Your task to perform on an android device: Go to privacy settings Image 0: 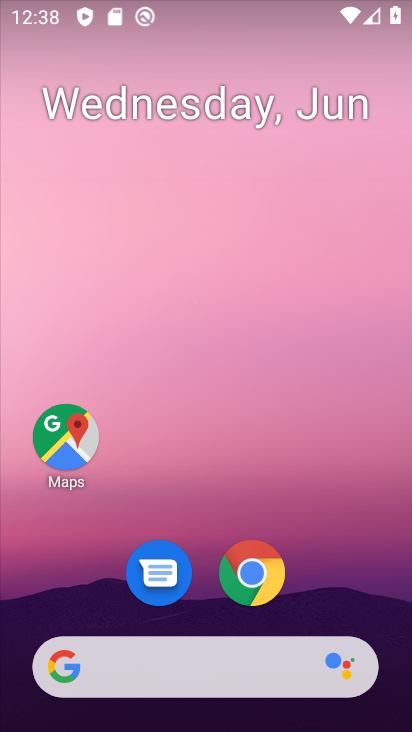
Step 0: drag from (292, 543) to (286, 154)
Your task to perform on an android device: Go to privacy settings Image 1: 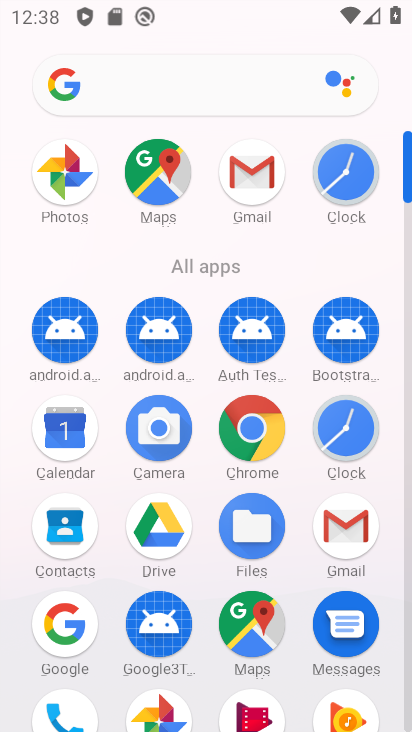
Step 1: drag from (211, 568) to (179, 287)
Your task to perform on an android device: Go to privacy settings Image 2: 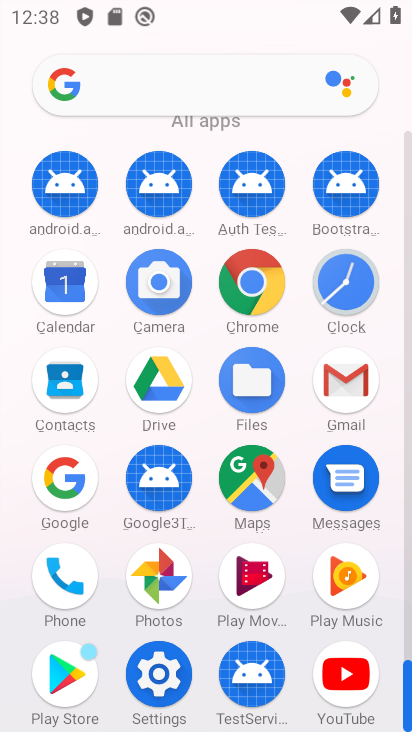
Step 2: click (175, 691)
Your task to perform on an android device: Go to privacy settings Image 3: 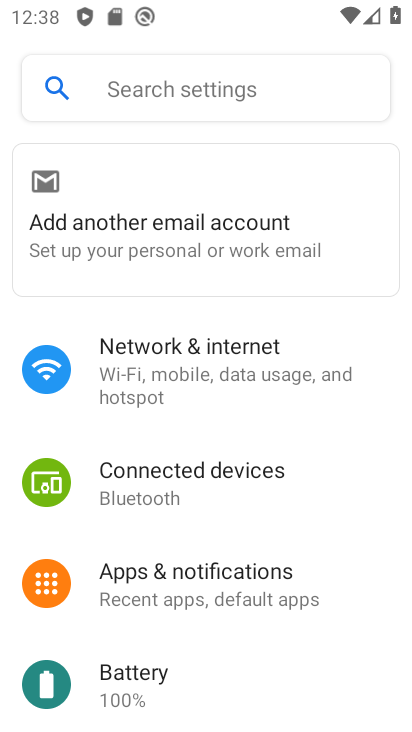
Step 3: drag from (188, 685) to (213, 459)
Your task to perform on an android device: Go to privacy settings Image 4: 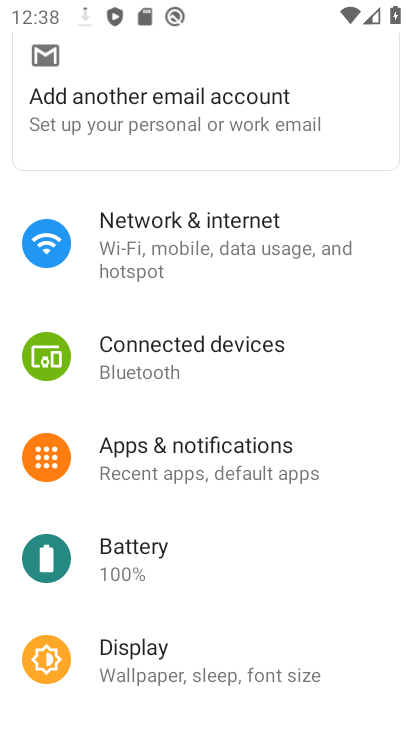
Step 4: drag from (217, 605) to (249, 366)
Your task to perform on an android device: Go to privacy settings Image 5: 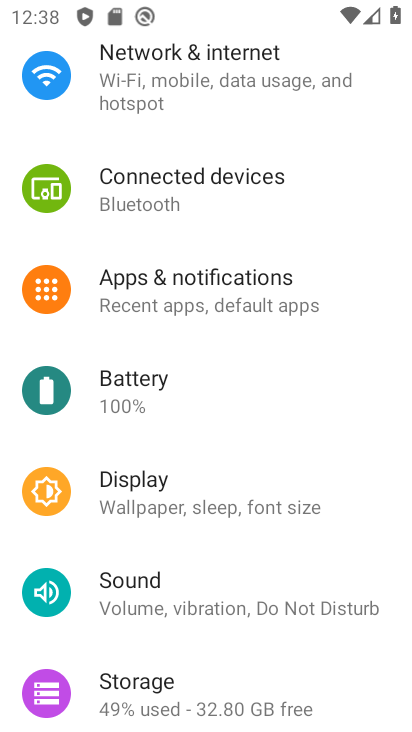
Step 5: drag from (218, 577) to (241, 362)
Your task to perform on an android device: Go to privacy settings Image 6: 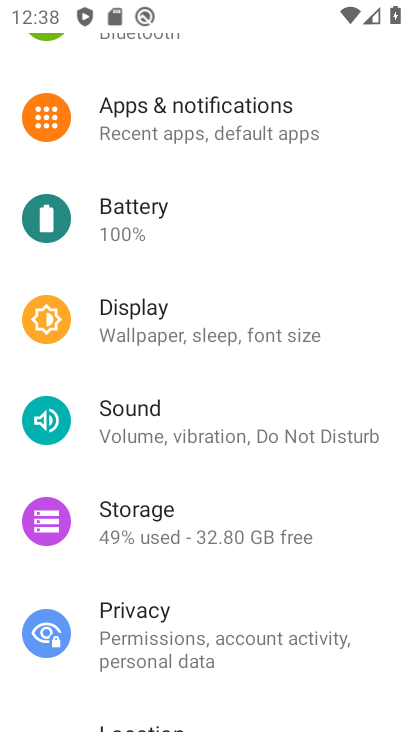
Step 6: click (185, 626)
Your task to perform on an android device: Go to privacy settings Image 7: 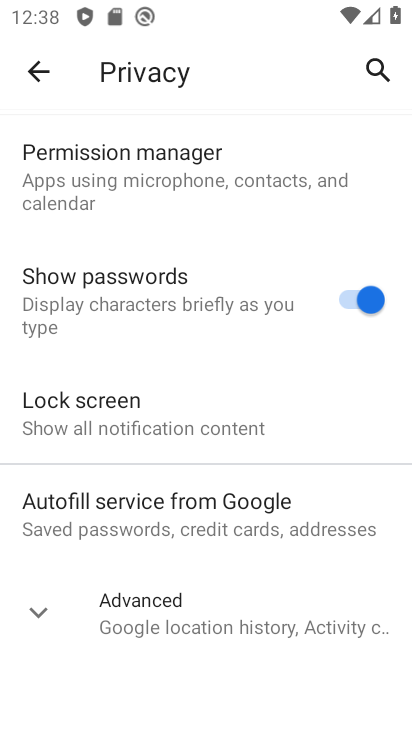
Step 7: task complete